Your task to perform on an android device: add a label to a message in the gmail app Image 0: 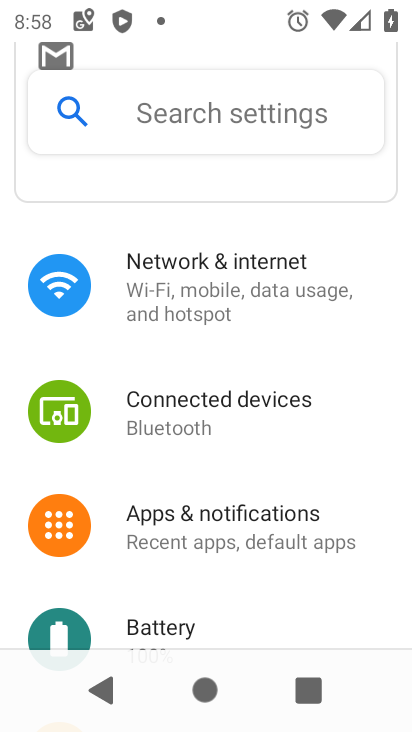
Step 0: press home button
Your task to perform on an android device: add a label to a message in the gmail app Image 1: 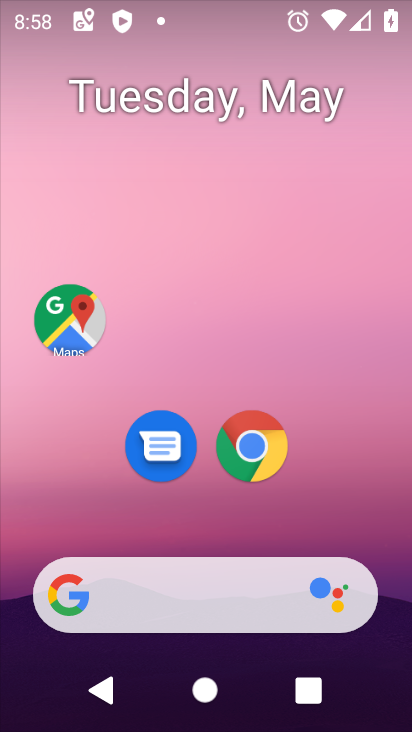
Step 1: drag from (370, 547) to (329, 11)
Your task to perform on an android device: add a label to a message in the gmail app Image 2: 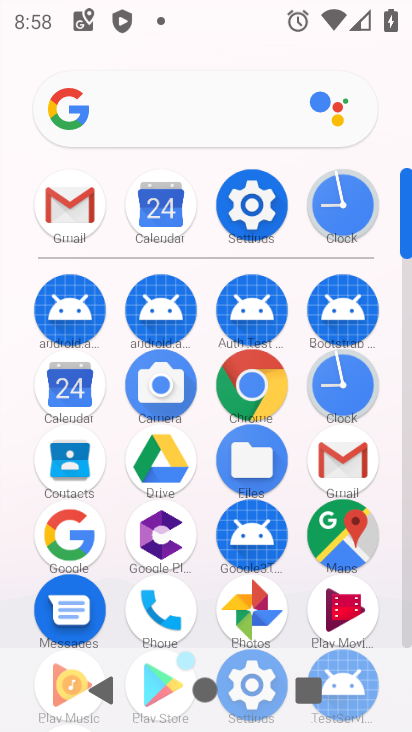
Step 2: click (76, 204)
Your task to perform on an android device: add a label to a message in the gmail app Image 3: 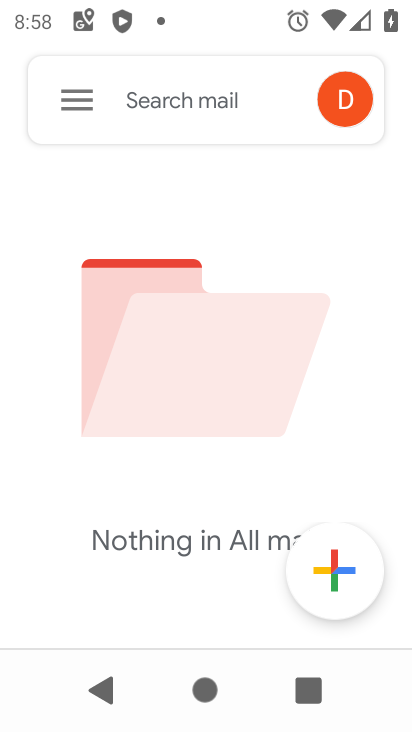
Step 3: task complete